Your task to perform on an android device: Open Google Maps Image 0: 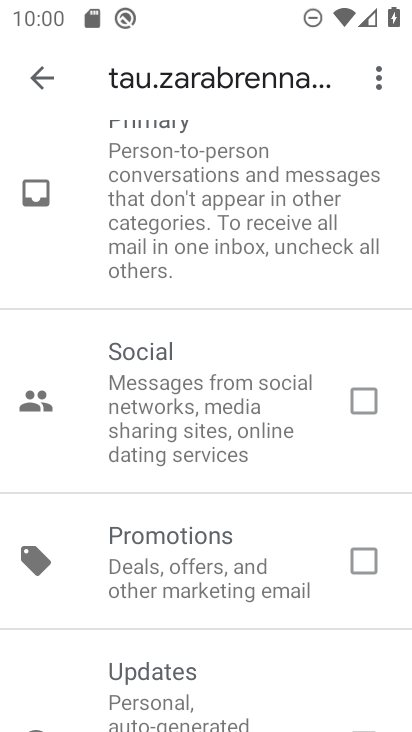
Step 0: press home button
Your task to perform on an android device: Open Google Maps Image 1: 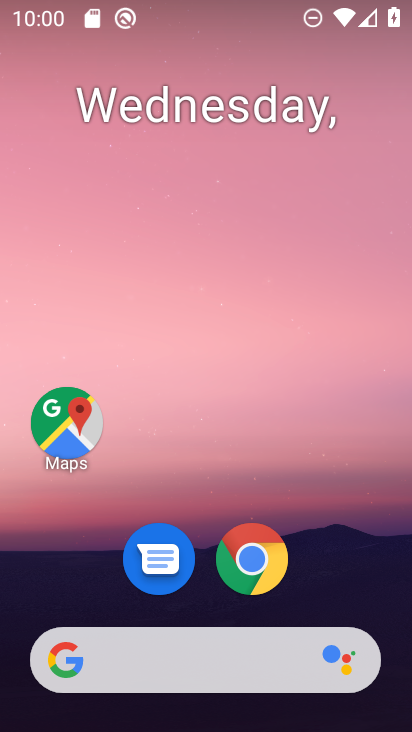
Step 1: drag from (361, 561) to (377, 131)
Your task to perform on an android device: Open Google Maps Image 2: 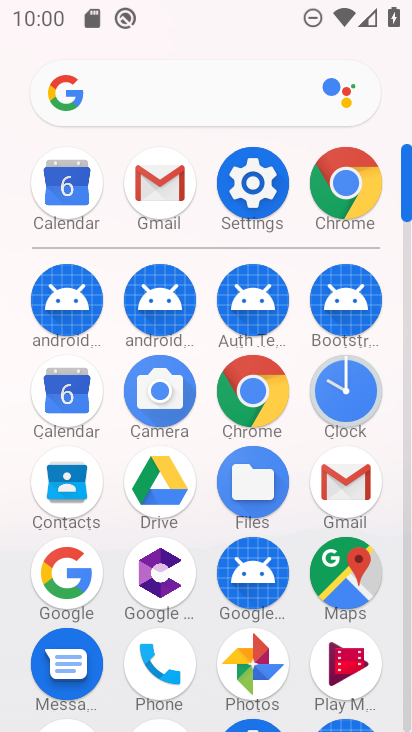
Step 2: click (354, 570)
Your task to perform on an android device: Open Google Maps Image 3: 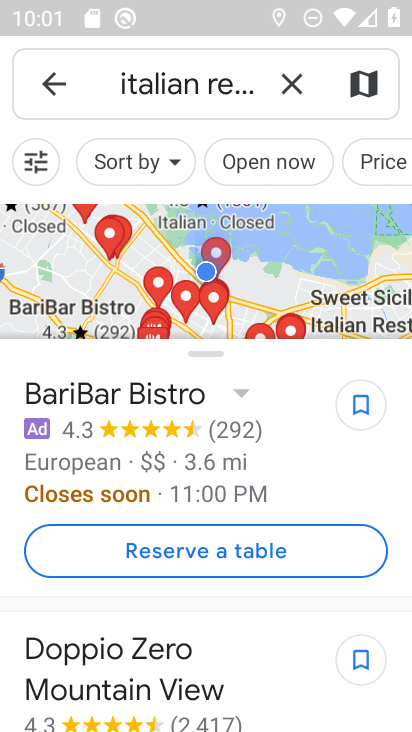
Step 3: task complete